Your task to perform on an android device: open device folders in google photos Image 0: 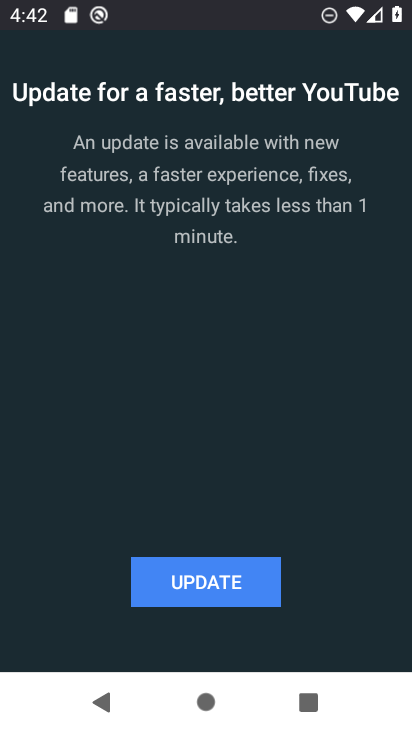
Step 0: press home button
Your task to perform on an android device: open device folders in google photos Image 1: 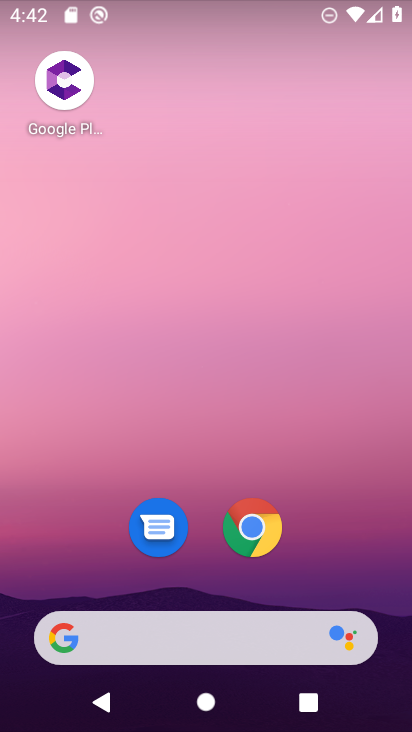
Step 1: drag from (363, 259) to (363, 20)
Your task to perform on an android device: open device folders in google photos Image 2: 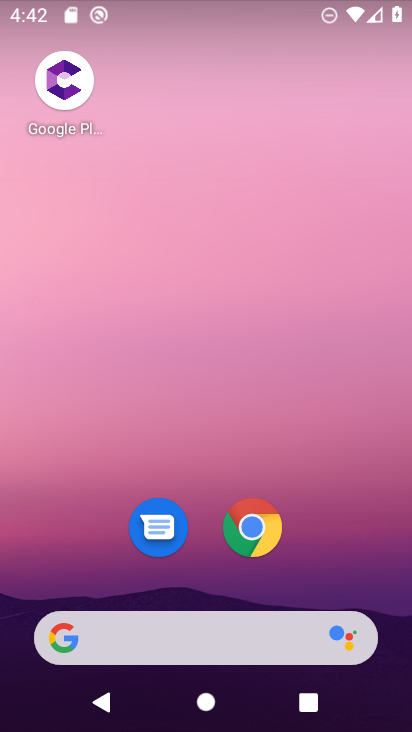
Step 2: drag from (354, 536) to (341, 7)
Your task to perform on an android device: open device folders in google photos Image 3: 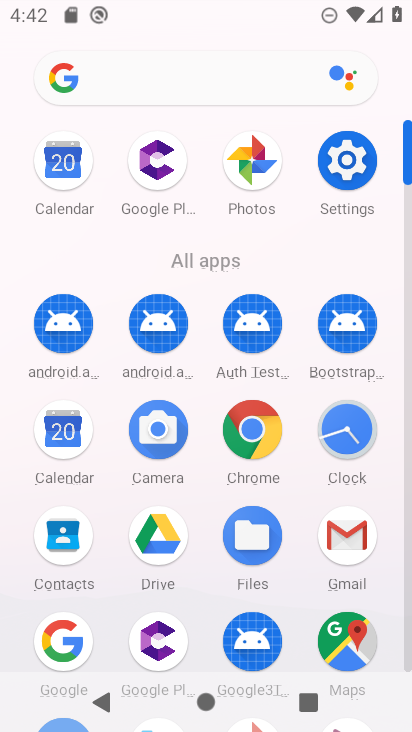
Step 3: click (252, 163)
Your task to perform on an android device: open device folders in google photos Image 4: 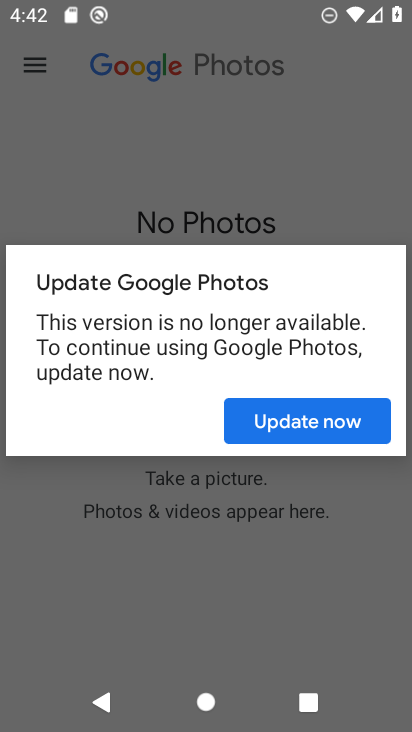
Step 4: click (297, 419)
Your task to perform on an android device: open device folders in google photos Image 5: 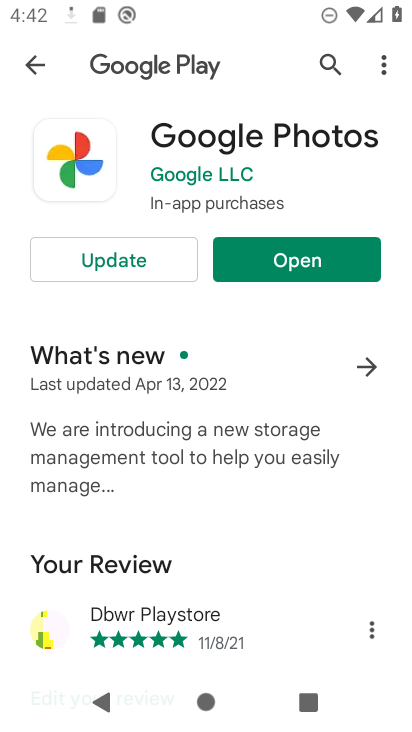
Step 5: click (29, 68)
Your task to perform on an android device: open device folders in google photos Image 6: 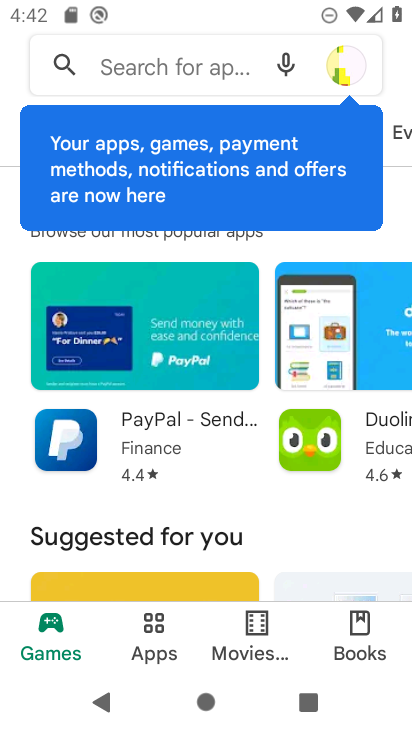
Step 6: press home button
Your task to perform on an android device: open device folders in google photos Image 7: 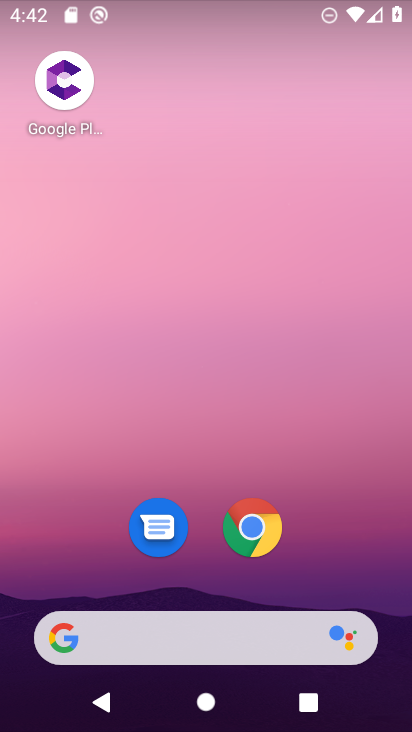
Step 7: drag from (349, 387) to (328, 6)
Your task to perform on an android device: open device folders in google photos Image 8: 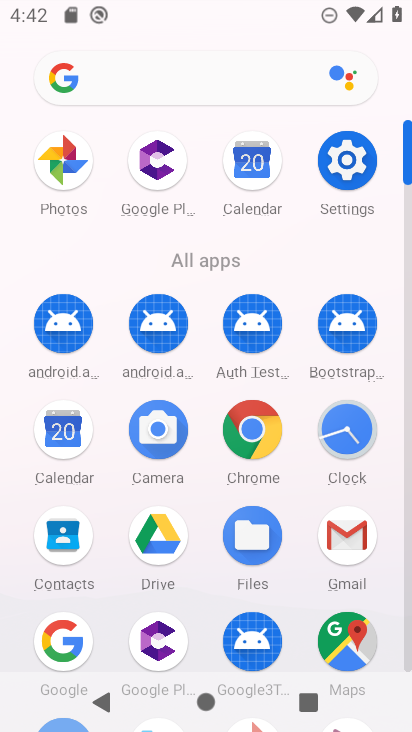
Step 8: click (59, 161)
Your task to perform on an android device: open device folders in google photos Image 9: 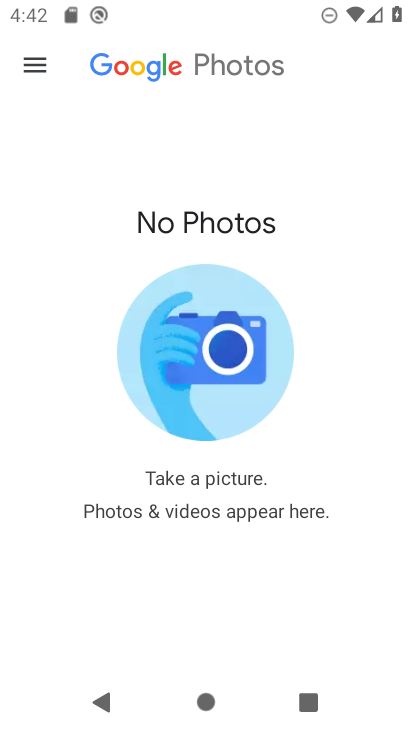
Step 9: click (31, 66)
Your task to perform on an android device: open device folders in google photos Image 10: 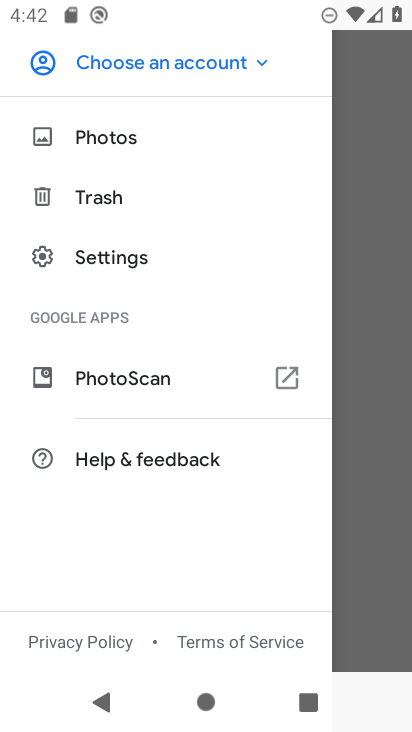
Step 10: task complete